Your task to perform on an android device: turn on the 12-hour format for clock Image 0: 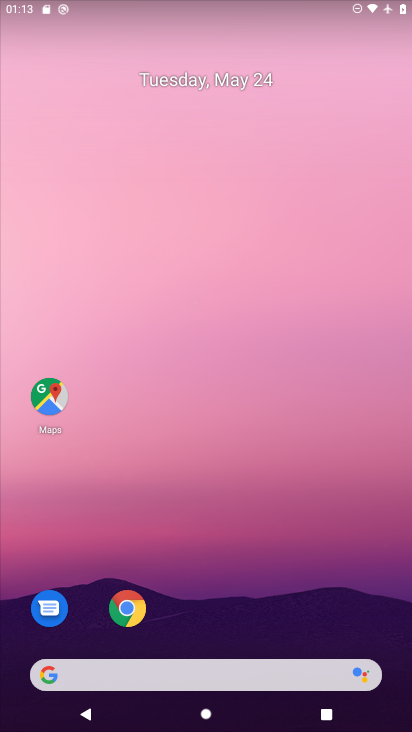
Step 0: drag from (275, 619) to (234, 85)
Your task to perform on an android device: turn on the 12-hour format for clock Image 1: 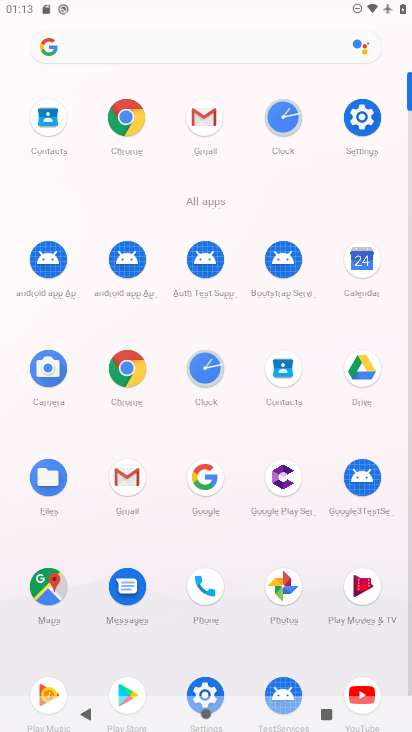
Step 1: click (290, 142)
Your task to perform on an android device: turn on the 12-hour format for clock Image 2: 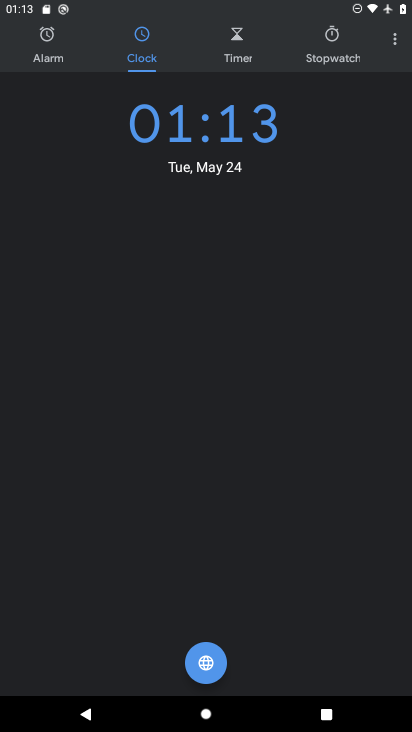
Step 2: click (386, 59)
Your task to perform on an android device: turn on the 12-hour format for clock Image 3: 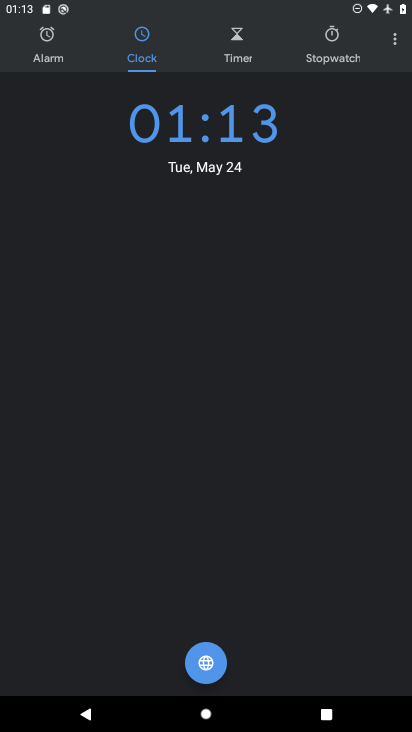
Step 3: click (392, 42)
Your task to perform on an android device: turn on the 12-hour format for clock Image 4: 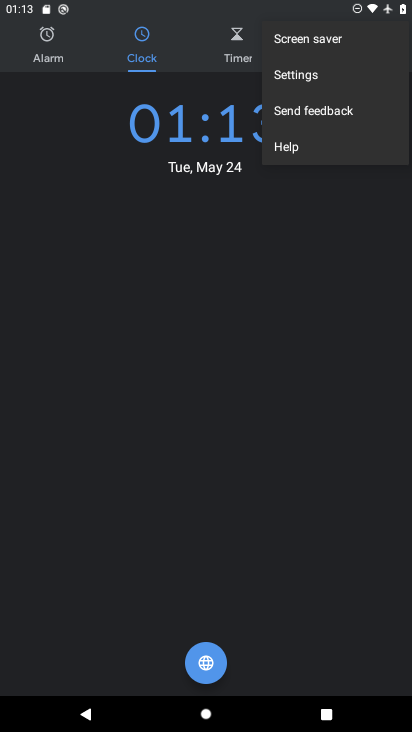
Step 4: click (309, 81)
Your task to perform on an android device: turn on the 12-hour format for clock Image 5: 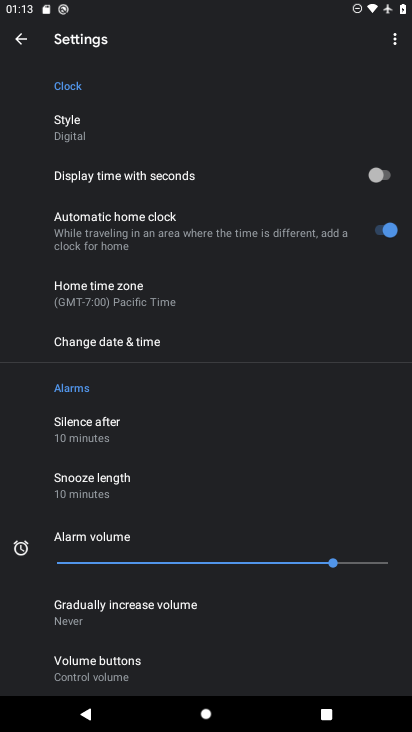
Step 5: click (114, 340)
Your task to perform on an android device: turn on the 12-hour format for clock Image 6: 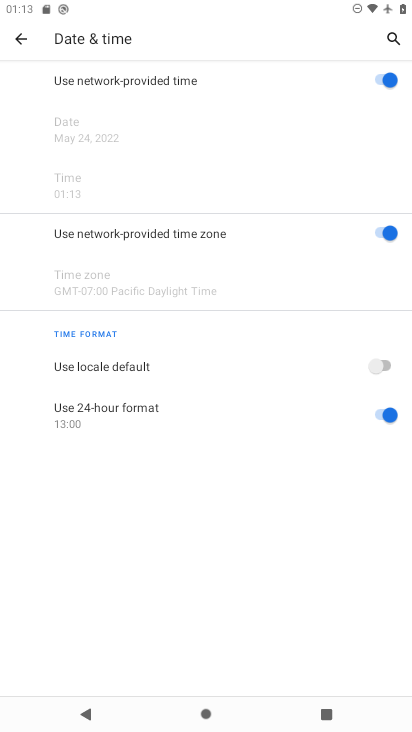
Step 6: click (156, 414)
Your task to perform on an android device: turn on the 12-hour format for clock Image 7: 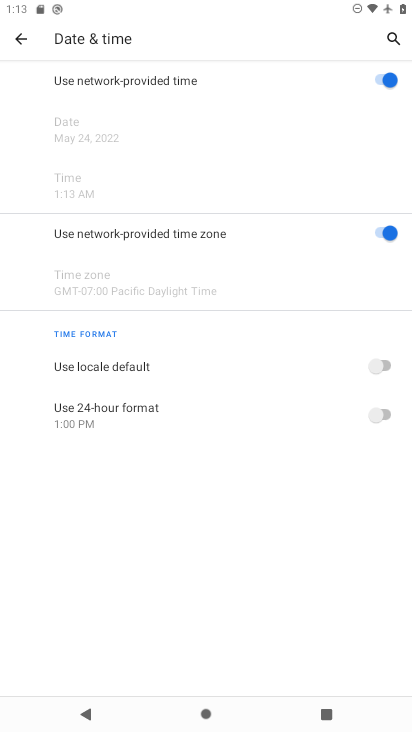
Step 7: task complete